Your task to perform on an android device: Where can I buy a nice beach cooler? Image 0: 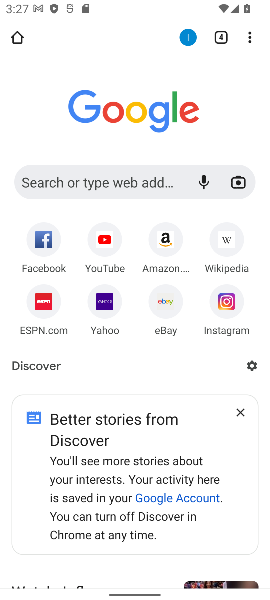
Step 0: click (121, 193)
Your task to perform on an android device: Where can I buy a nice beach cooler? Image 1: 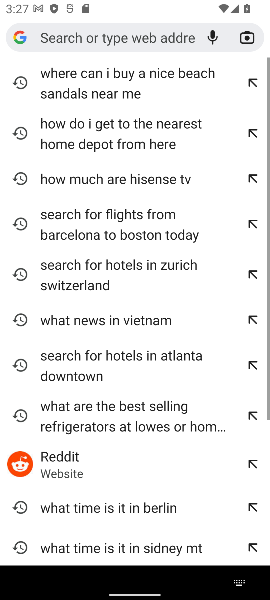
Step 1: type "Where can I buy a nice beach cooler"
Your task to perform on an android device: Where can I buy a nice beach cooler? Image 2: 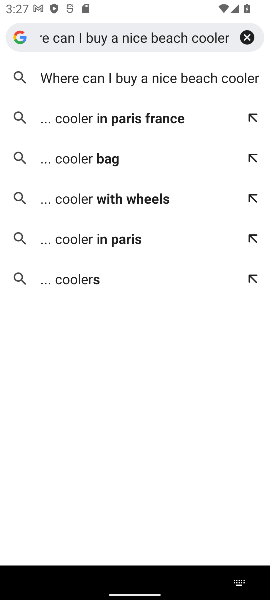
Step 2: click (151, 77)
Your task to perform on an android device: Where can I buy a nice beach cooler? Image 3: 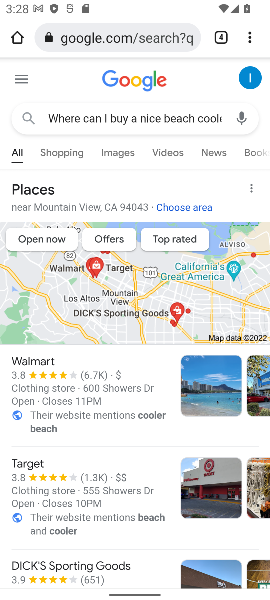
Step 3: task complete